Your task to perform on an android device: Go to network settings Image 0: 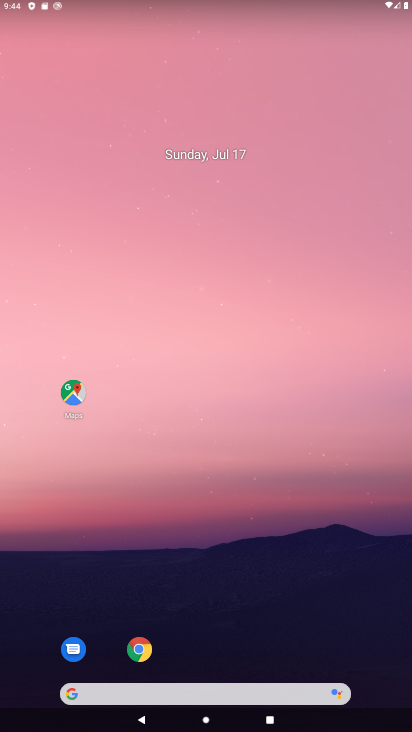
Step 0: drag from (61, 613) to (209, 96)
Your task to perform on an android device: Go to network settings Image 1: 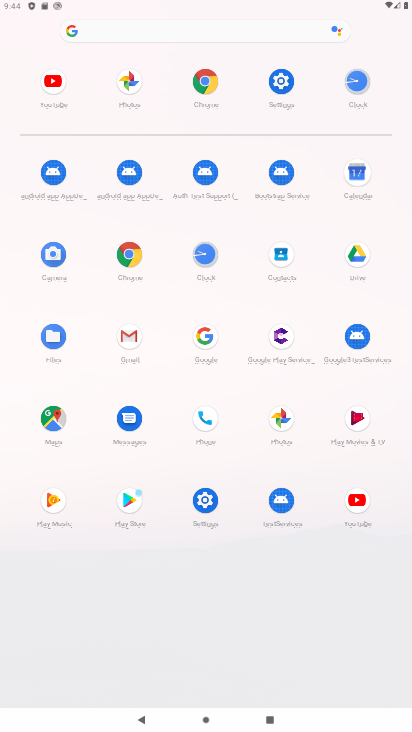
Step 1: click (211, 513)
Your task to perform on an android device: Go to network settings Image 2: 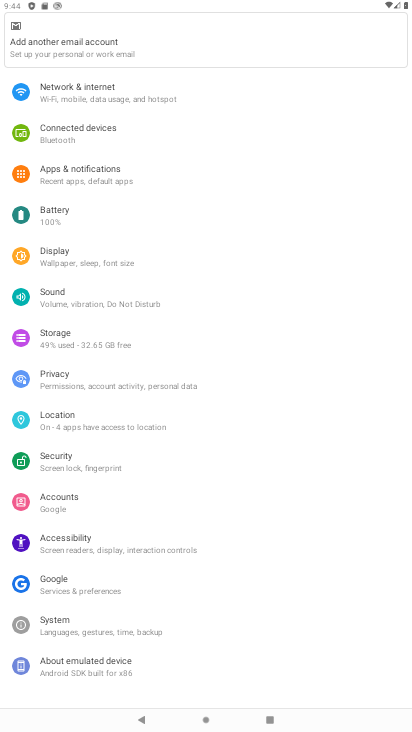
Step 2: click (126, 90)
Your task to perform on an android device: Go to network settings Image 3: 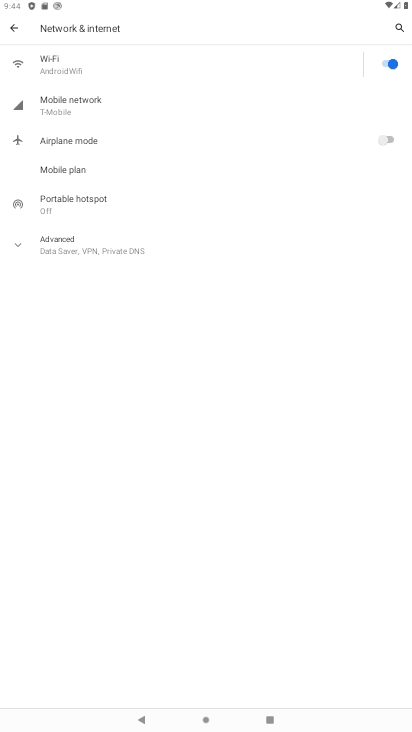
Step 3: task complete